Your task to perform on an android device: Do I have any events this weekend? Image 0: 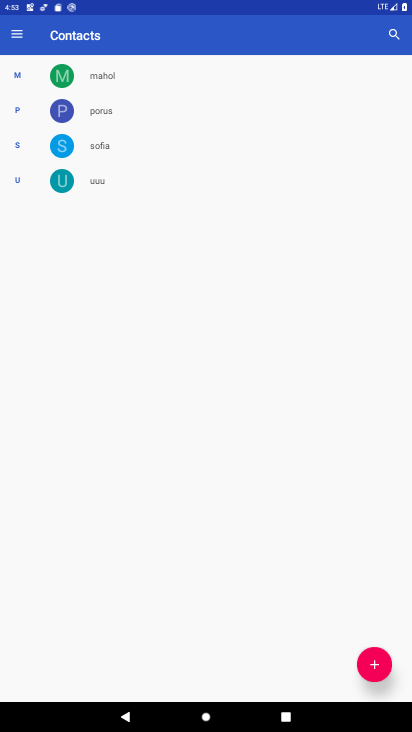
Step 0: press home button
Your task to perform on an android device: Do I have any events this weekend? Image 1: 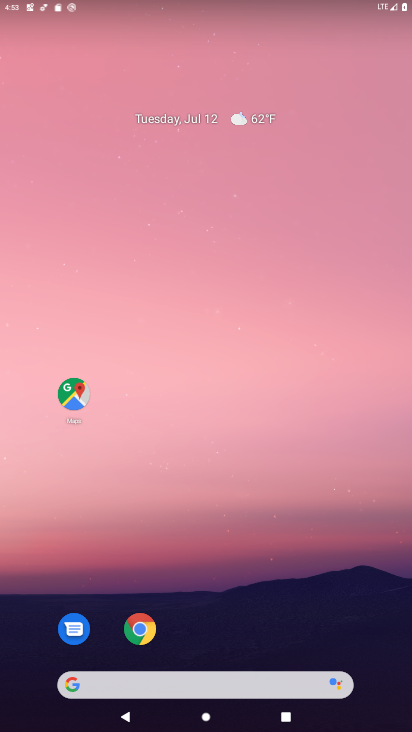
Step 1: drag from (285, 529) to (250, 68)
Your task to perform on an android device: Do I have any events this weekend? Image 2: 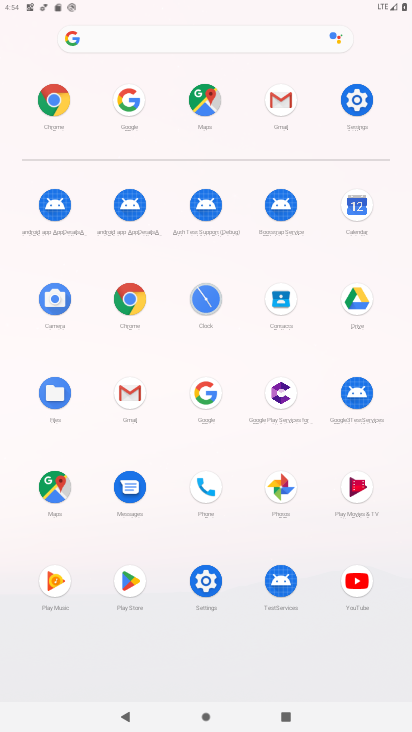
Step 2: click (354, 208)
Your task to perform on an android device: Do I have any events this weekend? Image 3: 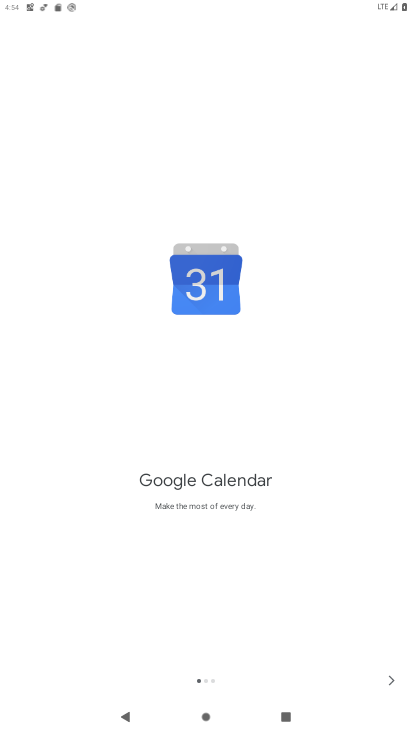
Step 3: click (397, 682)
Your task to perform on an android device: Do I have any events this weekend? Image 4: 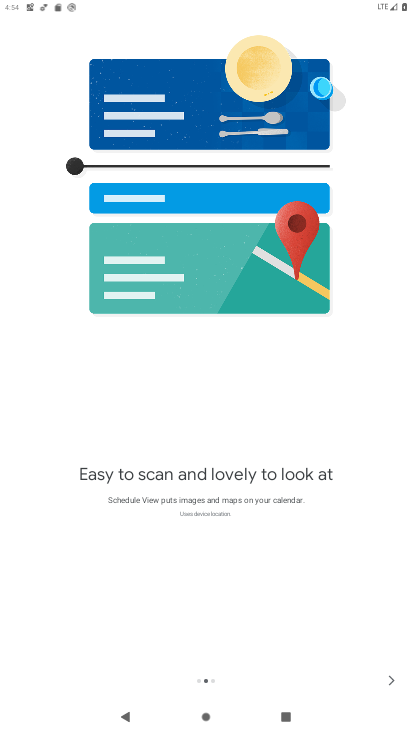
Step 4: click (388, 694)
Your task to perform on an android device: Do I have any events this weekend? Image 5: 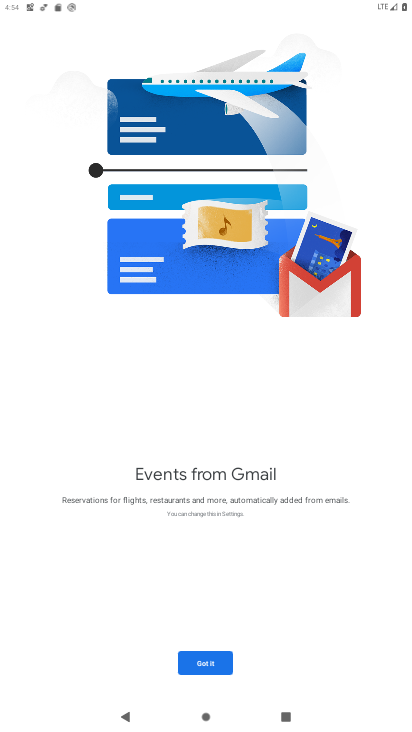
Step 5: click (198, 648)
Your task to perform on an android device: Do I have any events this weekend? Image 6: 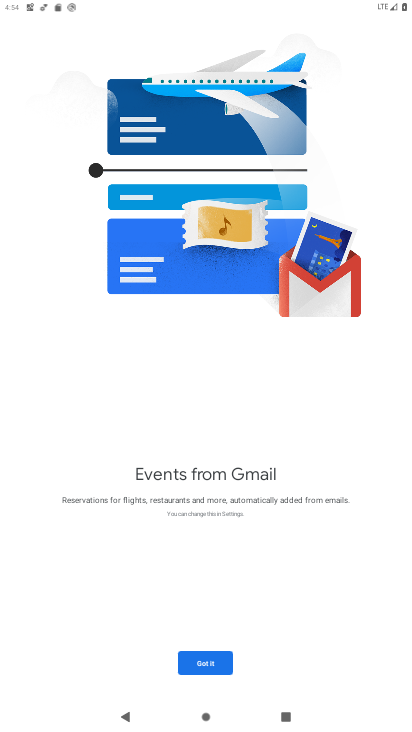
Step 6: click (205, 667)
Your task to perform on an android device: Do I have any events this weekend? Image 7: 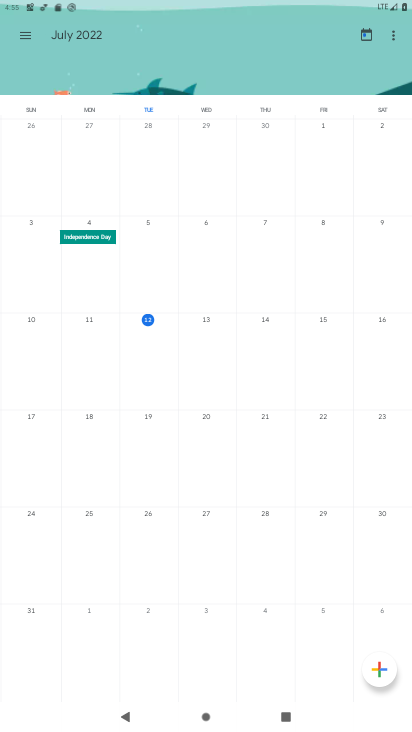
Step 7: task complete